Your task to perform on an android device: Open Yahoo.com Image 0: 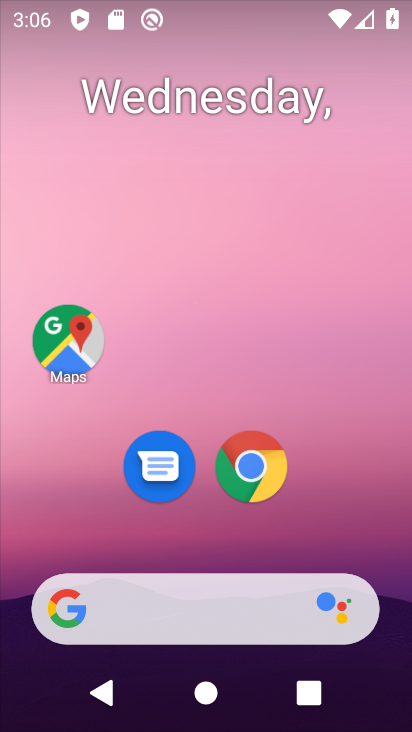
Step 0: click (250, 467)
Your task to perform on an android device: Open Yahoo.com Image 1: 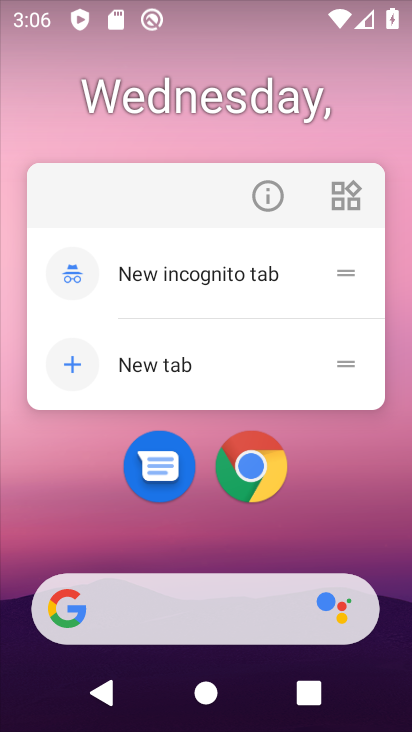
Step 1: click (241, 466)
Your task to perform on an android device: Open Yahoo.com Image 2: 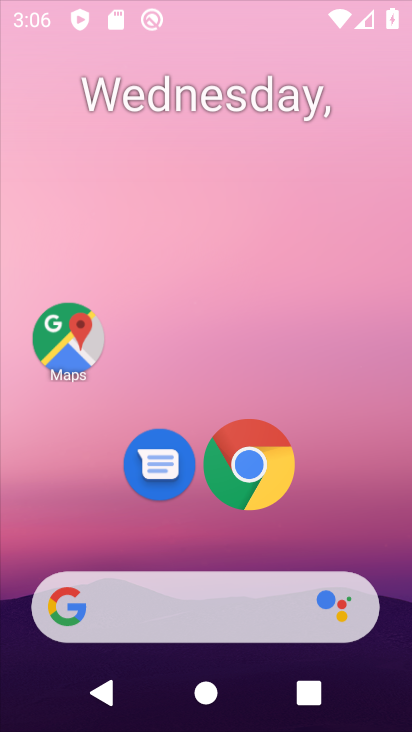
Step 2: click (254, 469)
Your task to perform on an android device: Open Yahoo.com Image 3: 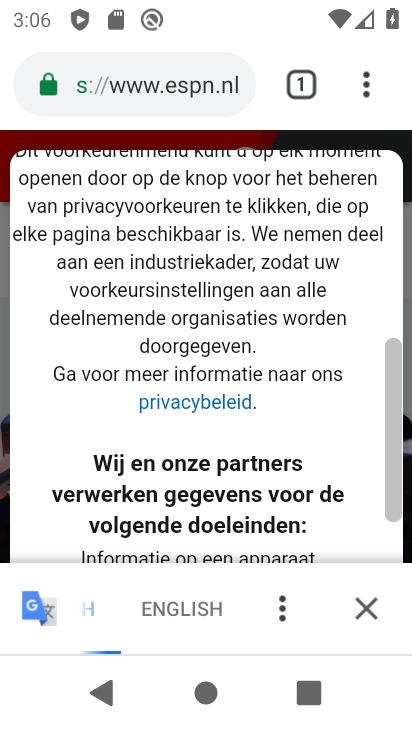
Step 3: click (117, 81)
Your task to perform on an android device: Open Yahoo.com Image 4: 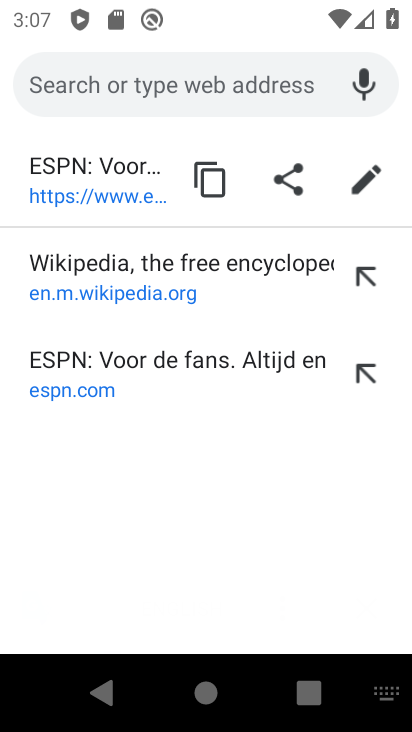
Step 4: type "yahoo.com"
Your task to perform on an android device: Open Yahoo.com Image 5: 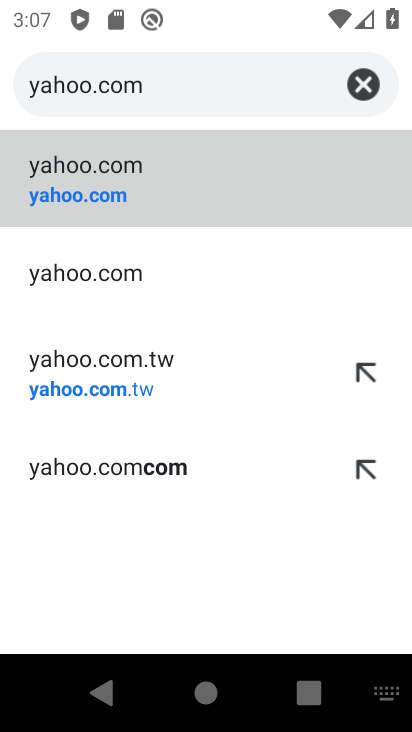
Step 5: click (60, 169)
Your task to perform on an android device: Open Yahoo.com Image 6: 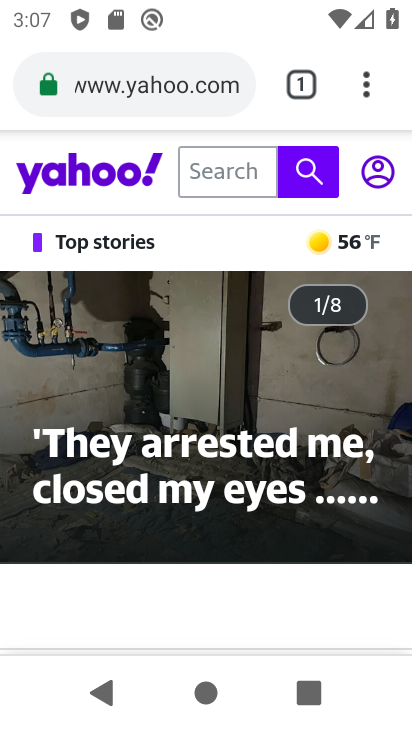
Step 6: task complete